Your task to perform on an android device: turn off improve location accuracy Image 0: 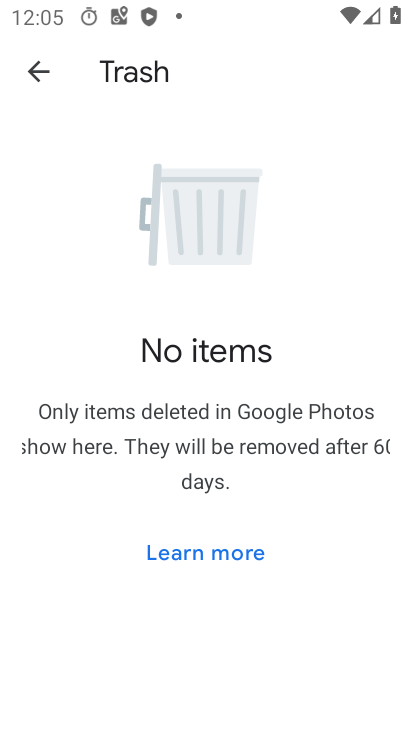
Step 0: press home button
Your task to perform on an android device: turn off improve location accuracy Image 1: 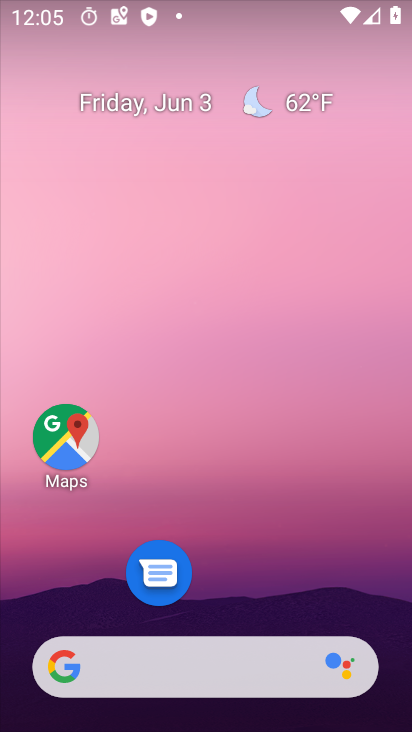
Step 1: drag from (301, 695) to (292, 204)
Your task to perform on an android device: turn off improve location accuracy Image 2: 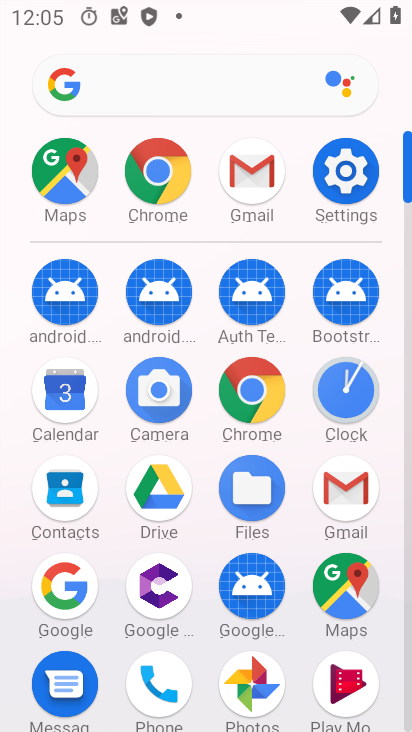
Step 2: click (352, 182)
Your task to perform on an android device: turn off improve location accuracy Image 3: 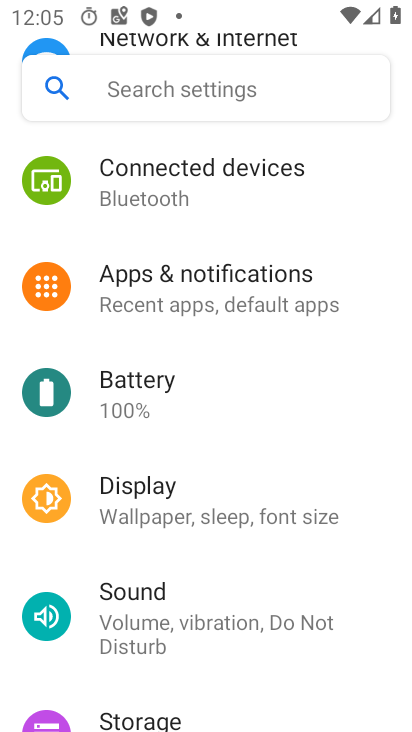
Step 3: drag from (154, 625) to (196, 140)
Your task to perform on an android device: turn off improve location accuracy Image 4: 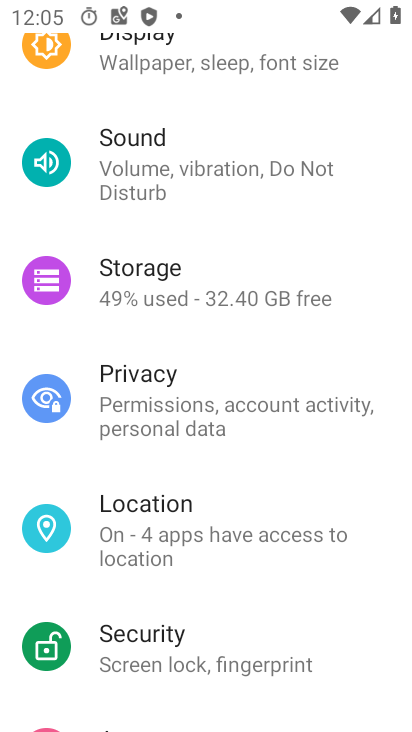
Step 4: click (134, 502)
Your task to perform on an android device: turn off improve location accuracy Image 5: 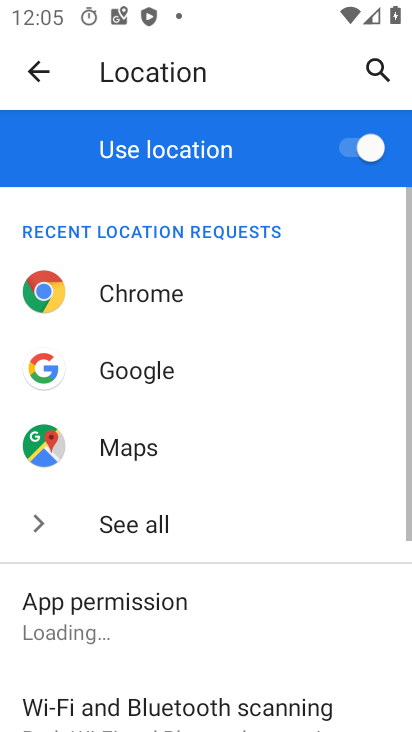
Step 5: drag from (160, 575) to (212, 172)
Your task to perform on an android device: turn off improve location accuracy Image 6: 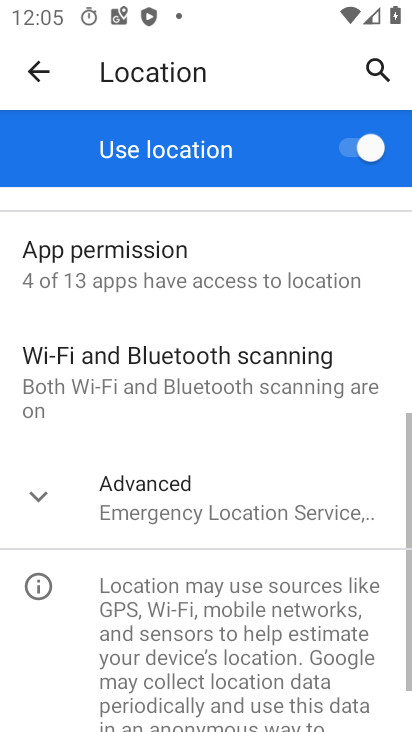
Step 6: click (226, 507)
Your task to perform on an android device: turn off improve location accuracy Image 7: 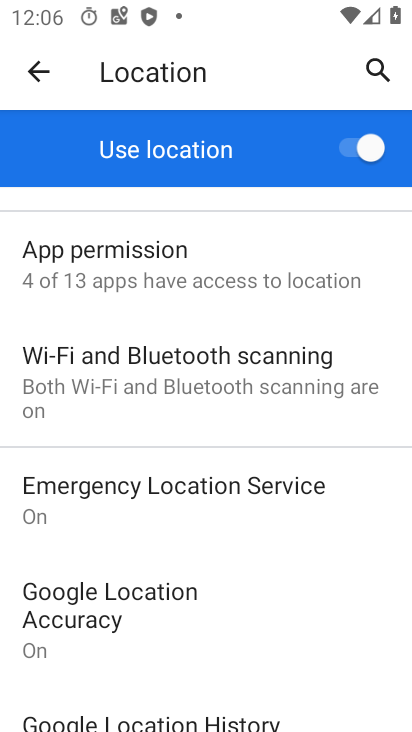
Step 7: click (208, 605)
Your task to perform on an android device: turn off improve location accuracy Image 8: 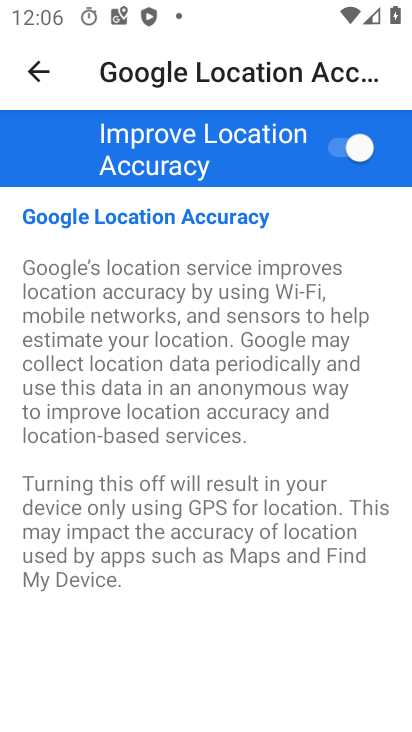
Step 8: click (340, 142)
Your task to perform on an android device: turn off improve location accuracy Image 9: 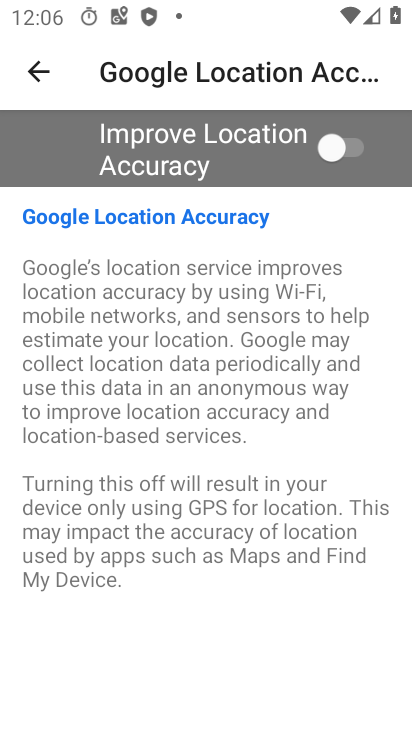
Step 9: task complete